Your task to perform on an android device: open app "YouTube Kids" Image 0: 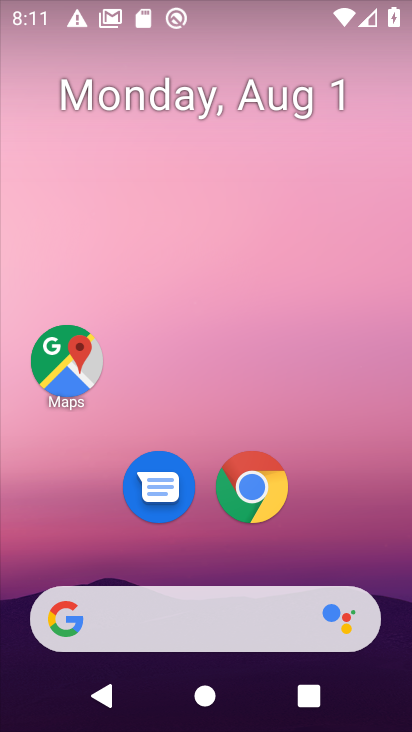
Step 0: press home button
Your task to perform on an android device: open app "YouTube Kids" Image 1: 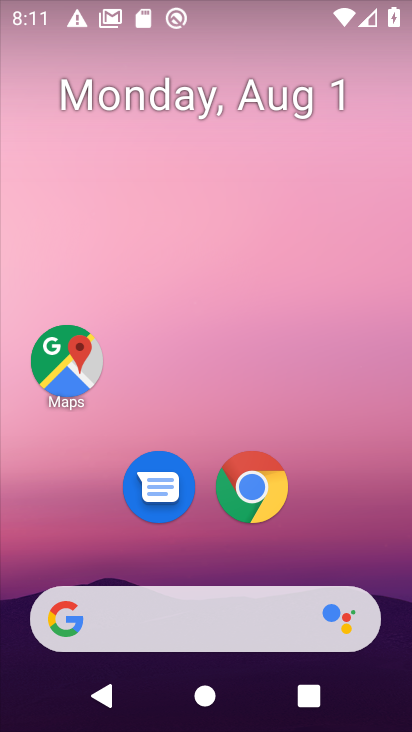
Step 1: drag from (384, 571) to (387, 74)
Your task to perform on an android device: open app "YouTube Kids" Image 2: 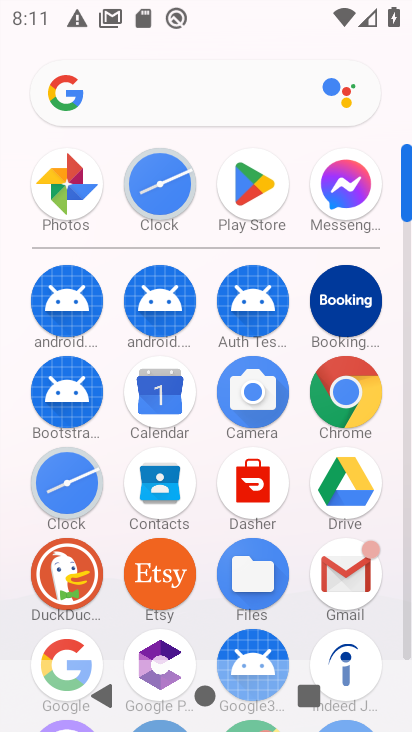
Step 2: click (259, 180)
Your task to perform on an android device: open app "YouTube Kids" Image 3: 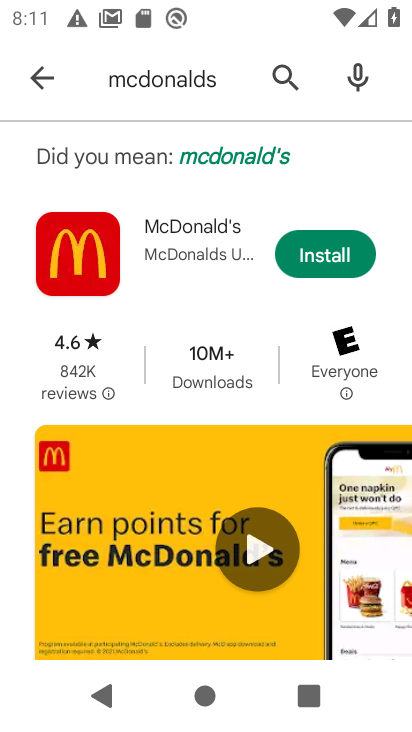
Step 3: click (289, 80)
Your task to perform on an android device: open app "YouTube Kids" Image 4: 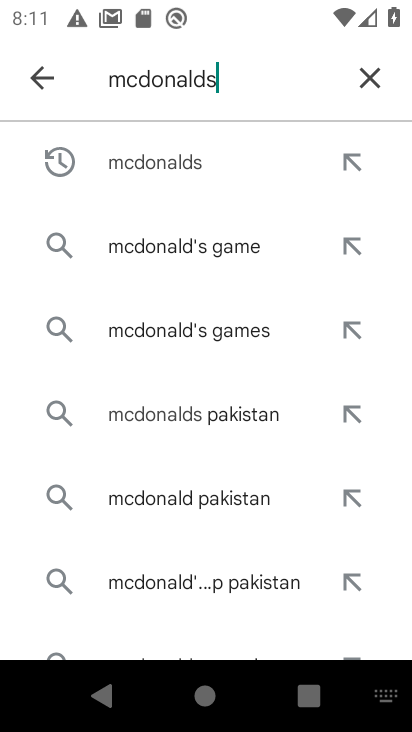
Step 4: click (365, 70)
Your task to perform on an android device: open app "YouTube Kids" Image 5: 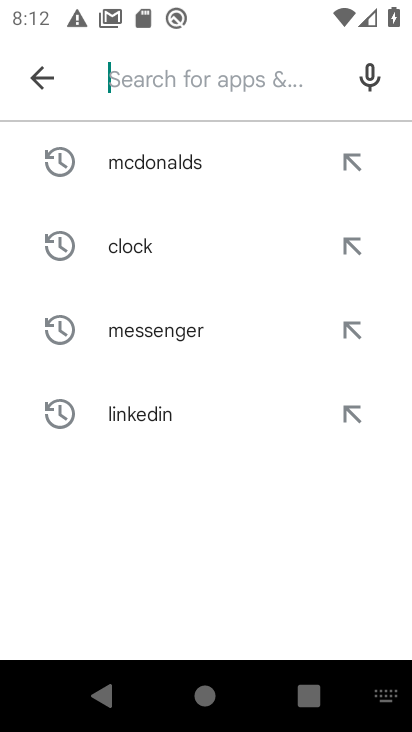
Step 5: click (278, 94)
Your task to perform on an android device: open app "YouTube Kids" Image 6: 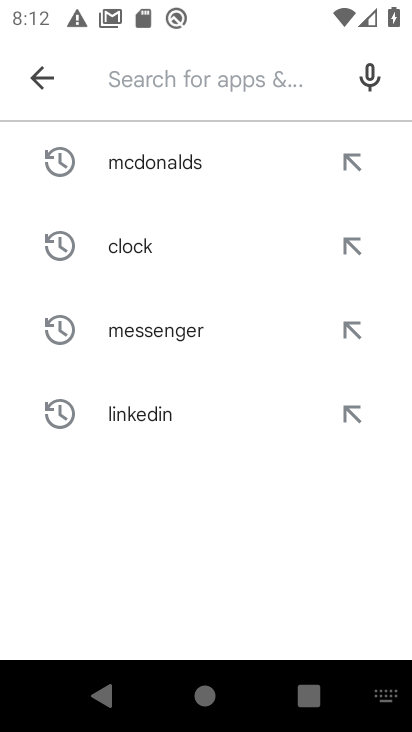
Step 6: type "youtube kids"
Your task to perform on an android device: open app "YouTube Kids" Image 7: 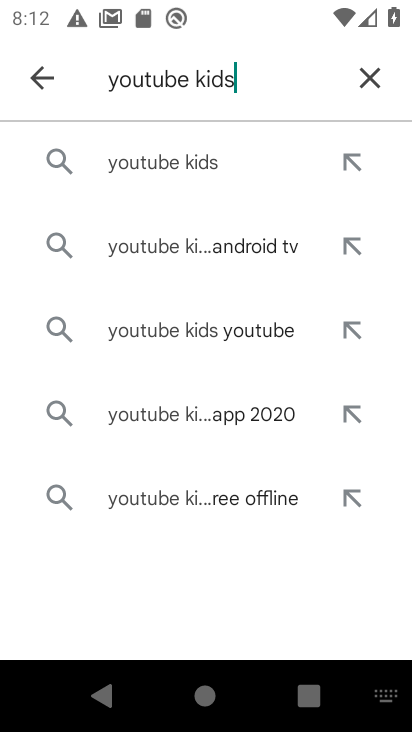
Step 7: click (194, 168)
Your task to perform on an android device: open app "YouTube Kids" Image 8: 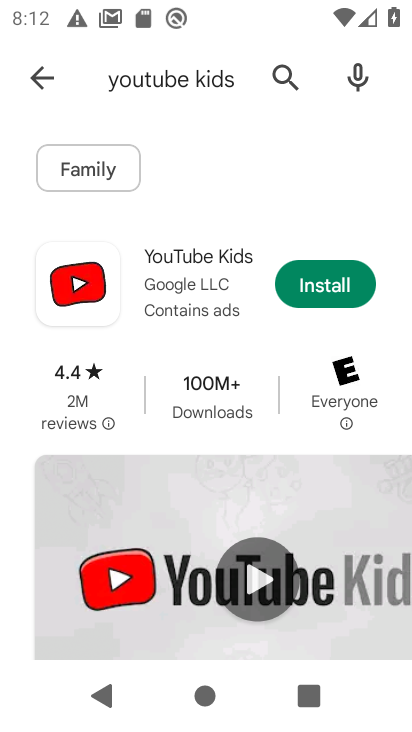
Step 8: task complete